Your task to perform on an android device: change alarm snooze length Image 0: 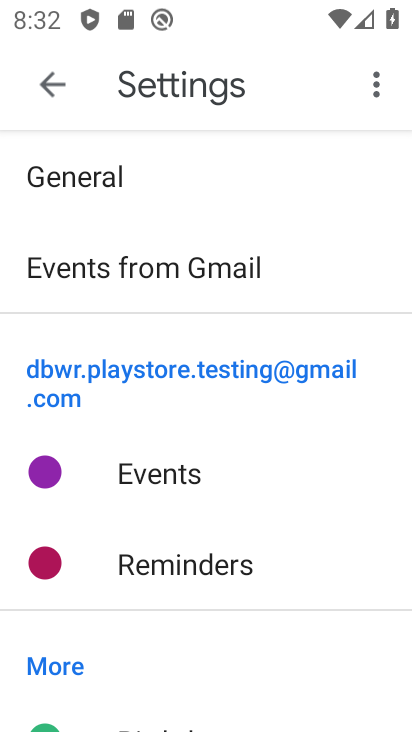
Step 0: press home button
Your task to perform on an android device: change alarm snooze length Image 1: 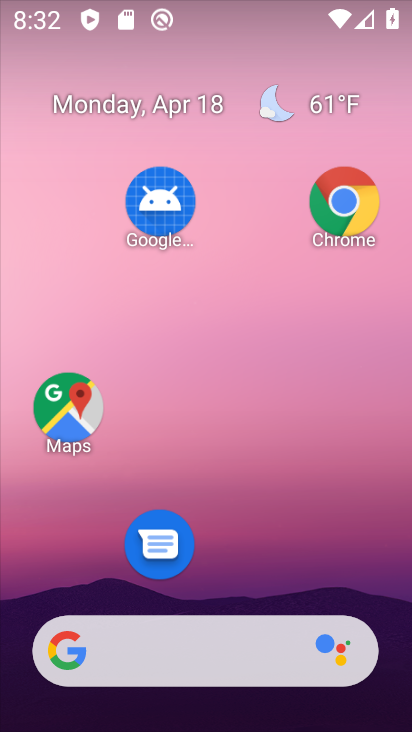
Step 1: drag from (211, 596) to (256, 27)
Your task to perform on an android device: change alarm snooze length Image 2: 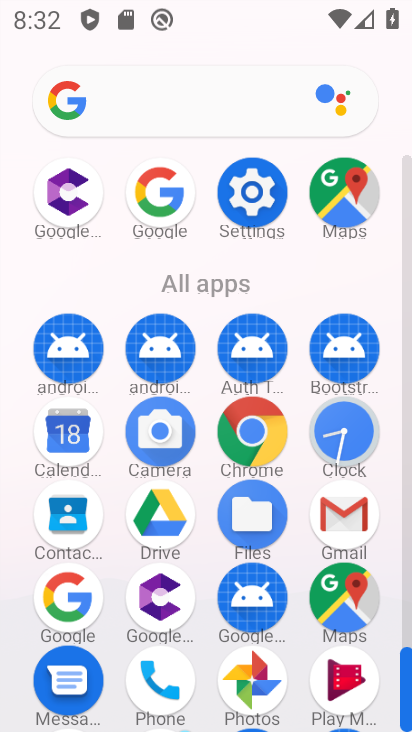
Step 2: click (330, 437)
Your task to perform on an android device: change alarm snooze length Image 3: 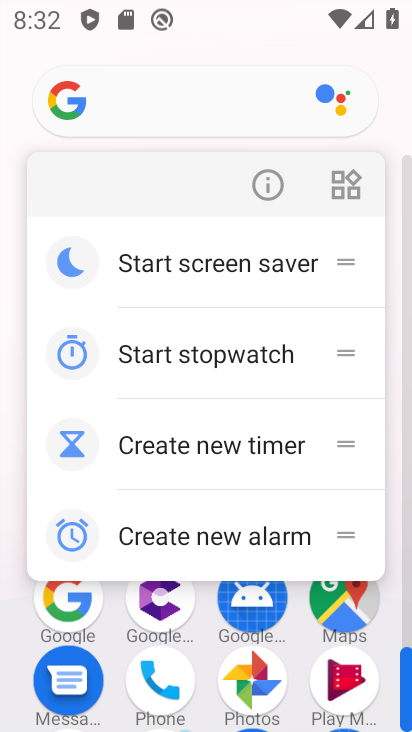
Step 3: click (397, 419)
Your task to perform on an android device: change alarm snooze length Image 4: 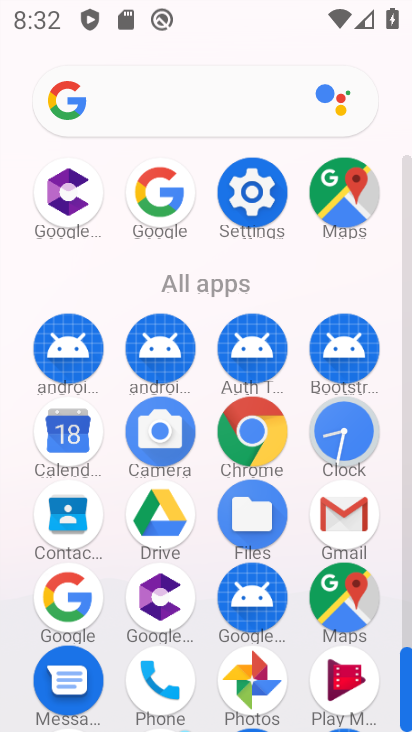
Step 4: click (355, 443)
Your task to perform on an android device: change alarm snooze length Image 5: 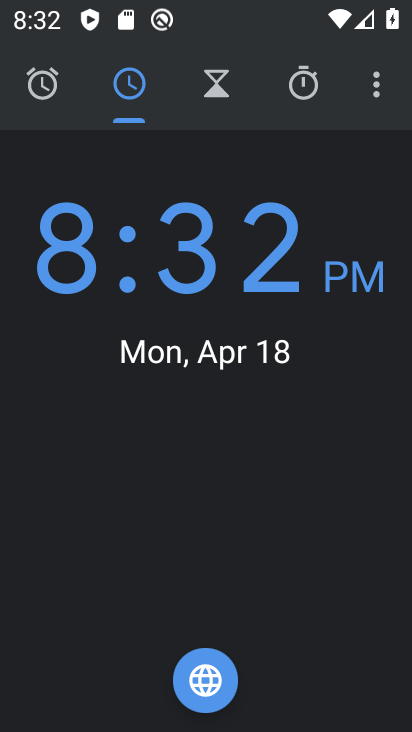
Step 5: click (377, 89)
Your task to perform on an android device: change alarm snooze length Image 6: 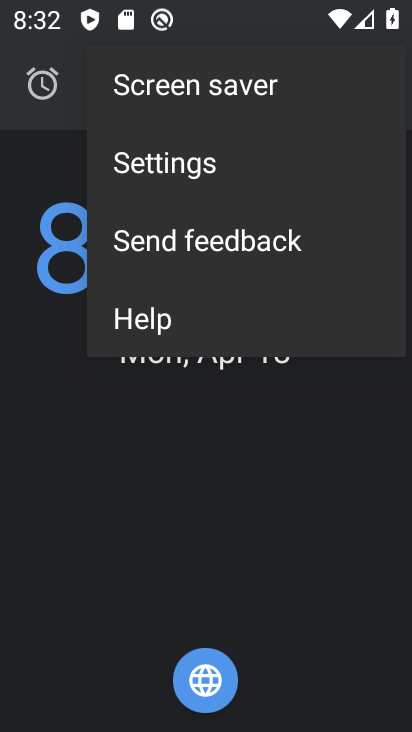
Step 6: click (161, 158)
Your task to perform on an android device: change alarm snooze length Image 7: 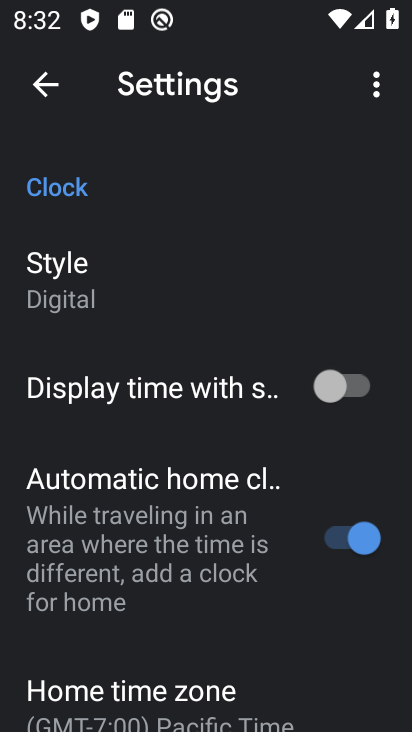
Step 7: drag from (209, 633) to (178, 191)
Your task to perform on an android device: change alarm snooze length Image 8: 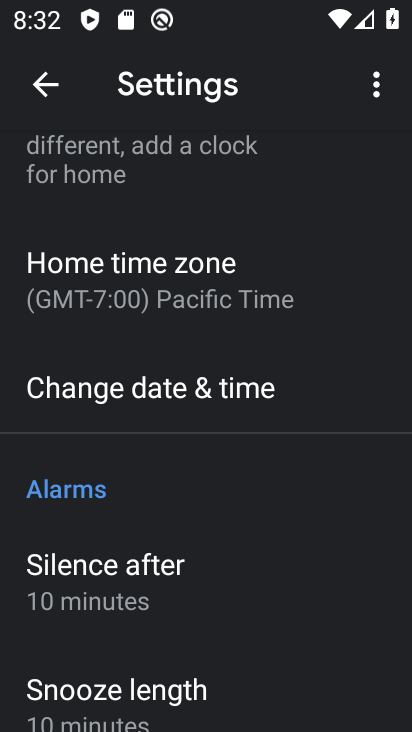
Step 8: click (152, 684)
Your task to perform on an android device: change alarm snooze length Image 9: 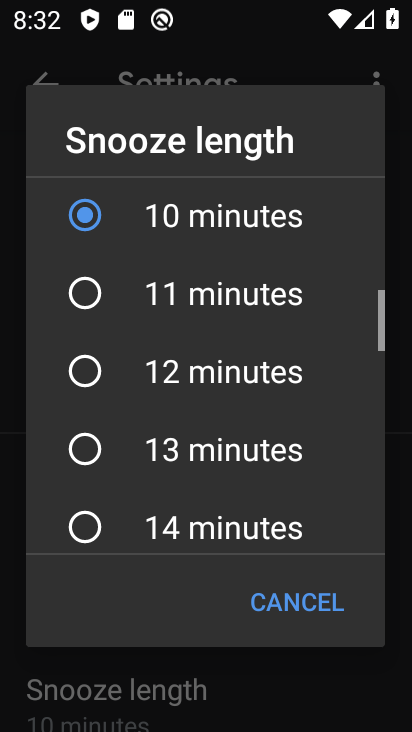
Step 9: click (150, 303)
Your task to perform on an android device: change alarm snooze length Image 10: 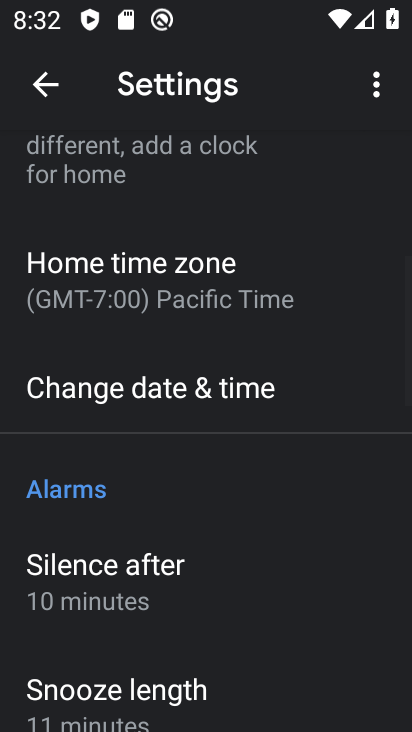
Step 10: task complete